Your task to perform on an android device: Search for pizza restaurants on Maps Image 0: 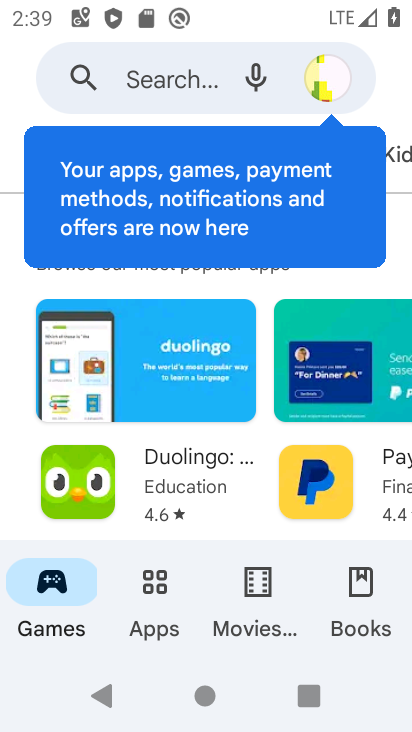
Step 0: press home button
Your task to perform on an android device: Search for pizza restaurants on Maps Image 1: 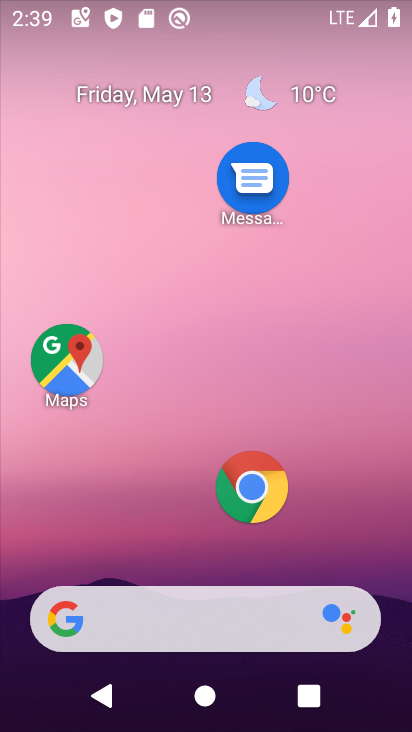
Step 1: click (68, 363)
Your task to perform on an android device: Search for pizza restaurants on Maps Image 2: 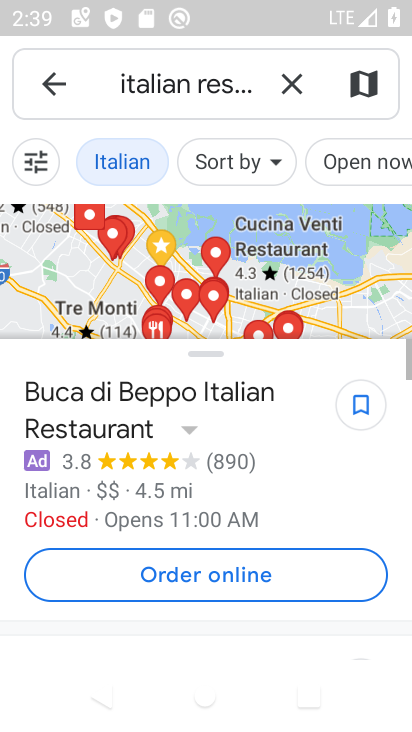
Step 2: click (283, 84)
Your task to perform on an android device: Search for pizza restaurants on Maps Image 3: 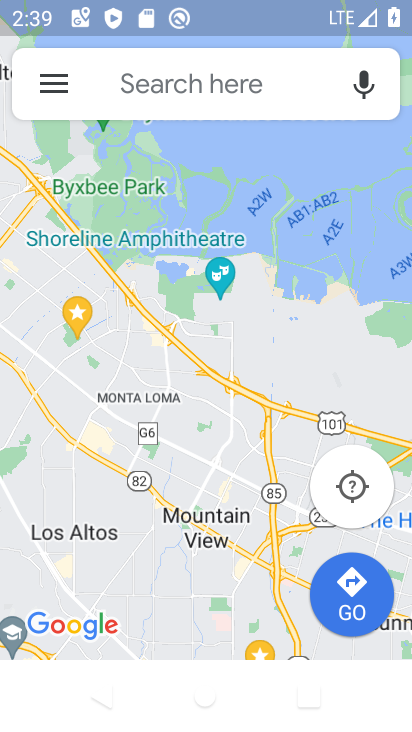
Step 3: type "pizza restaur"
Your task to perform on an android device: Search for pizza restaurants on Maps Image 4: 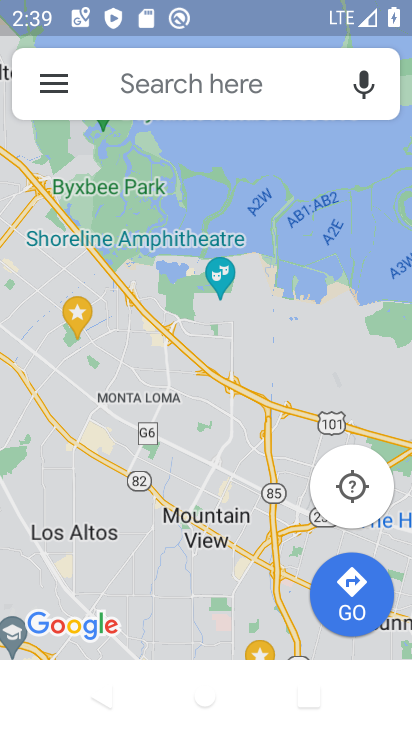
Step 4: click (164, 88)
Your task to perform on an android device: Search for pizza restaurants on Maps Image 5: 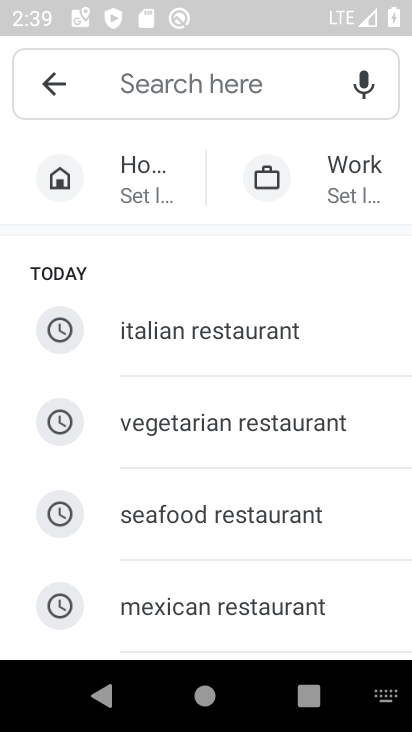
Step 5: type "pizza restaurants"
Your task to perform on an android device: Search for pizza restaurants on Maps Image 6: 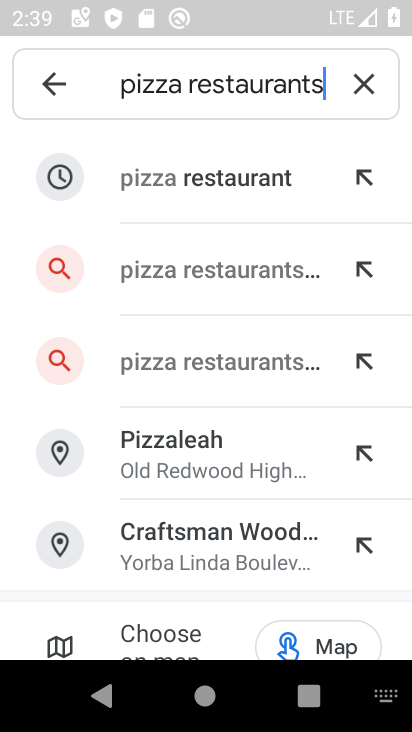
Step 6: click (152, 164)
Your task to perform on an android device: Search for pizza restaurants on Maps Image 7: 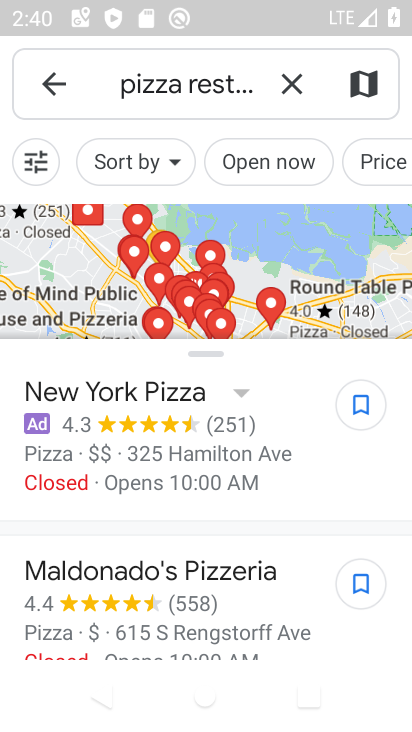
Step 7: task complete